Your task to perform on an android device: Look up the best rated pressure washer on Home Depot. Image 0: 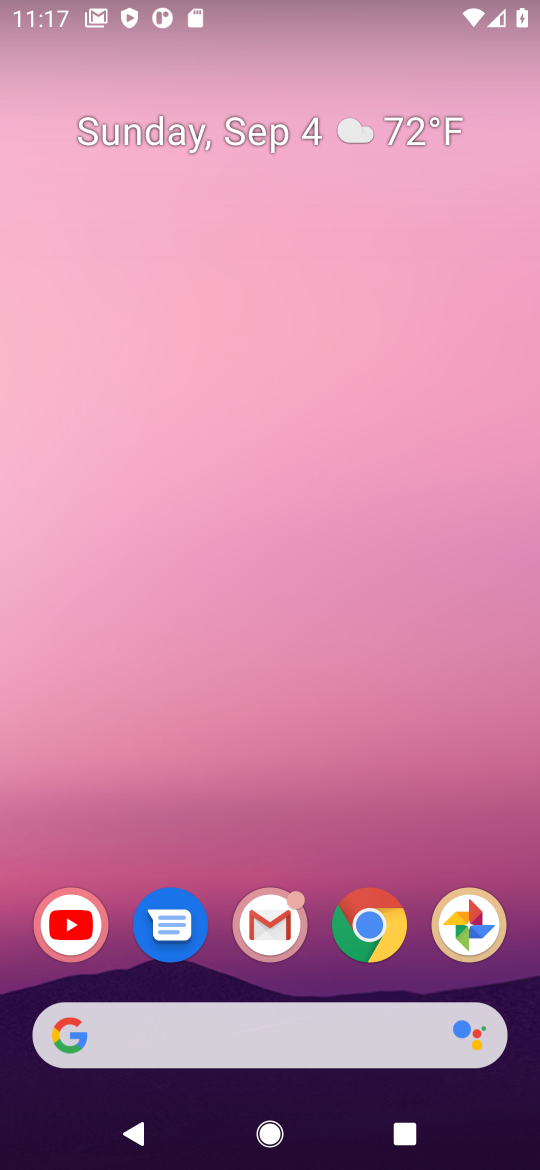
Step 0: press home button
Your task to perform on an android device: Look up the best rated pressure washer on Home Depot. Image 1: 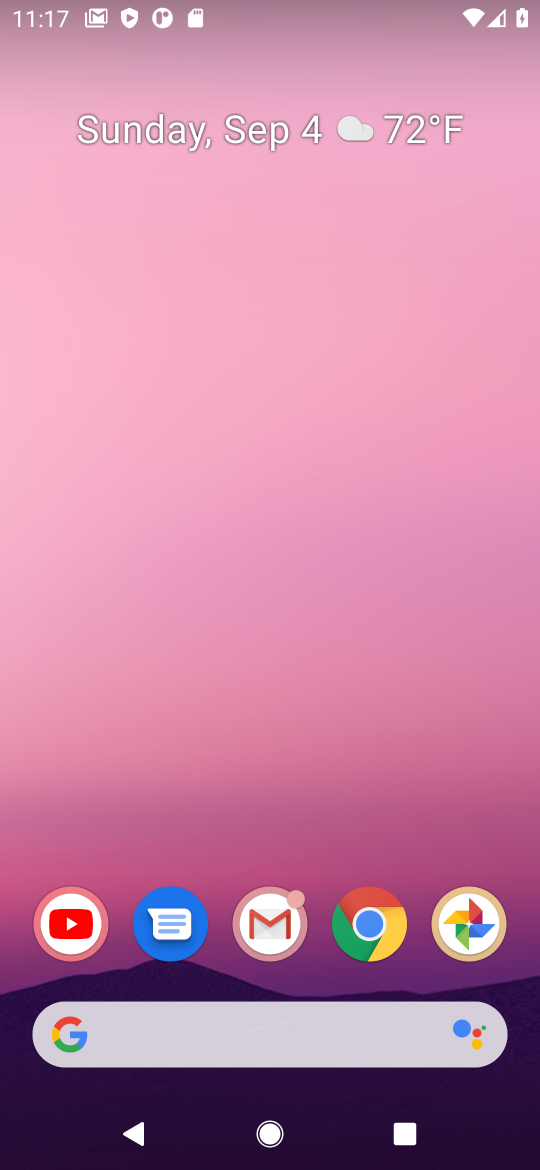
Step 1: drag from (329, 539) to (346, 12)
Your task to perform on an android device: Look up the best rated pressure washer on Home Depot. Image 2: 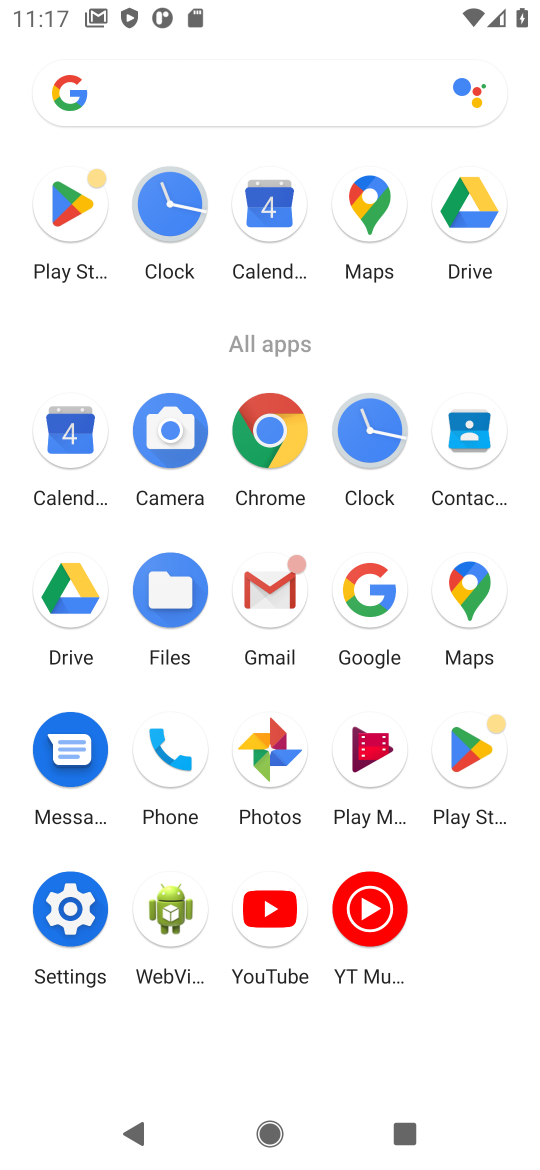
Step 2: click (272, 417)
Your task to perform on an android device: Look up the best rated pressure washer on Home Depot. Image 3: 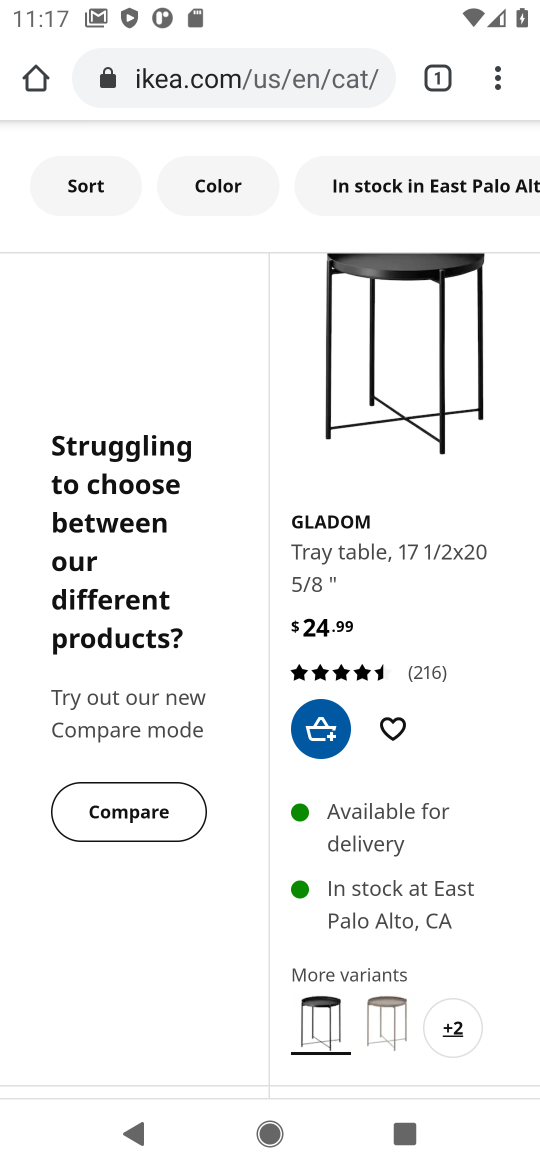
Step 3: click (426, 79)
Your task to perform on an android device: Look up the best rated pressure washer on Home Depot. Image 4: 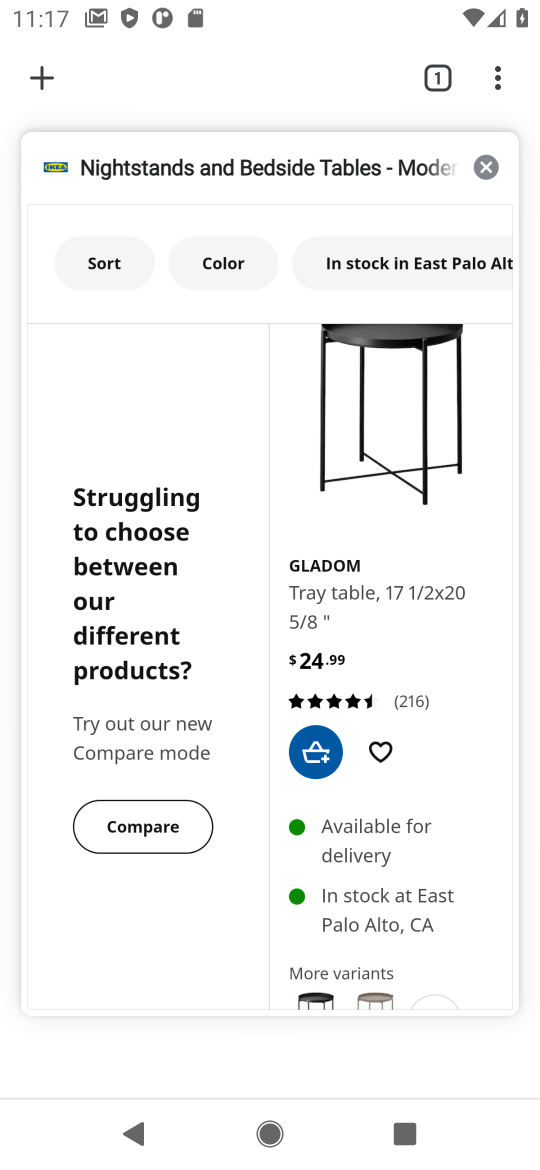
Step 4: click (489, 162)
Your task to perform on an android device: Look up the best rated pressure washer on Home Depot. Image 5: 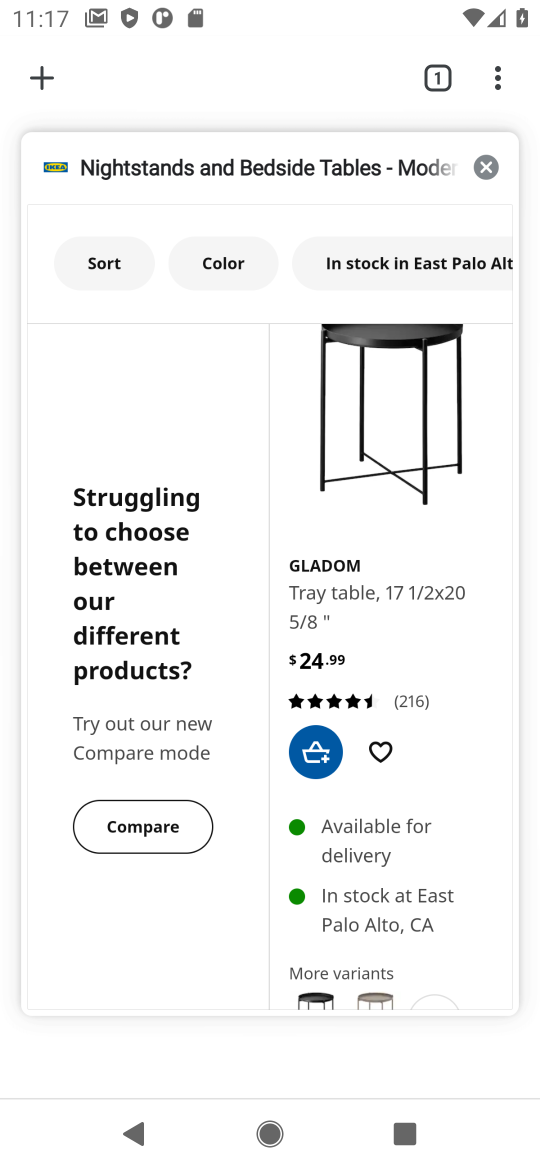
Step 5: click (48, 86)
Your task to perform on an android device: Look up the best rated pressure washer on Home Depot. Image 6: 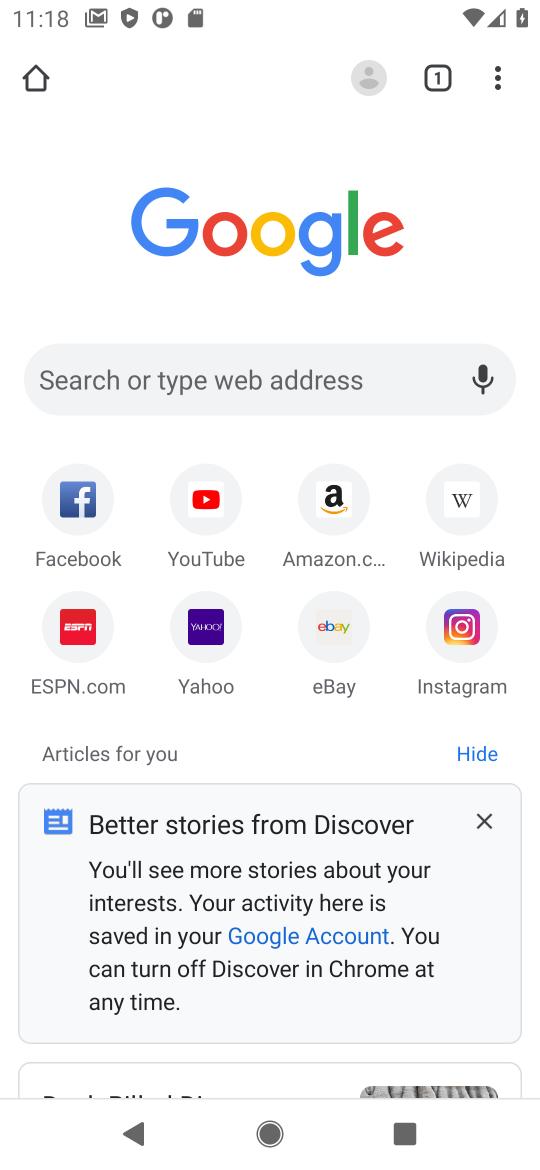
Step 6: click (162, 373)
Your task to perform on an android device: Look up the best rated pressure washer on Home Depot. Image 7: 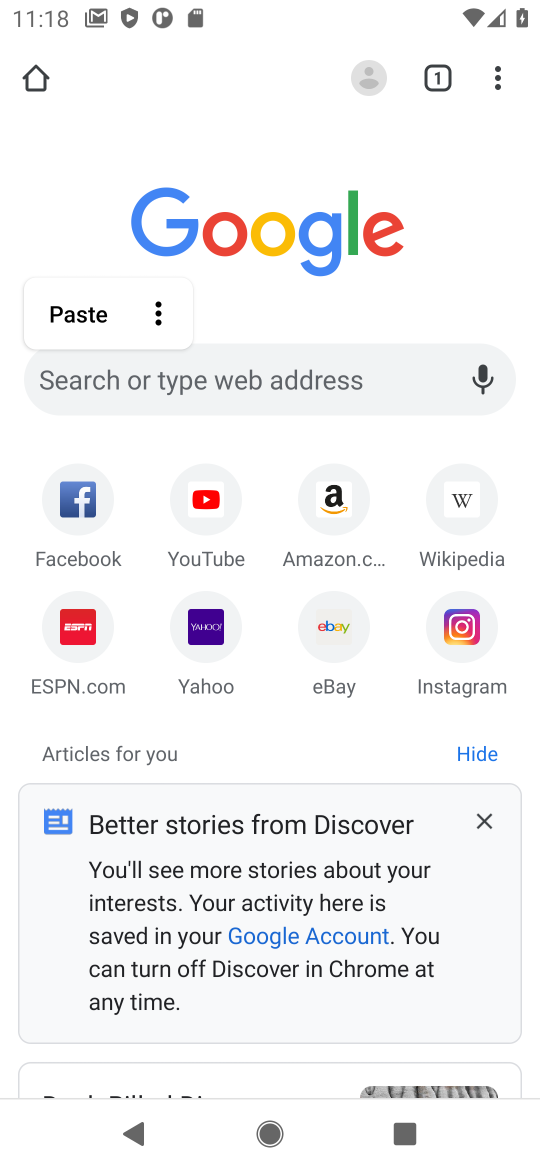
Step 7: click (213, 369)
Your task to perform on an android device: Look up the best rated pressure washer on Home Depot. Image 8: 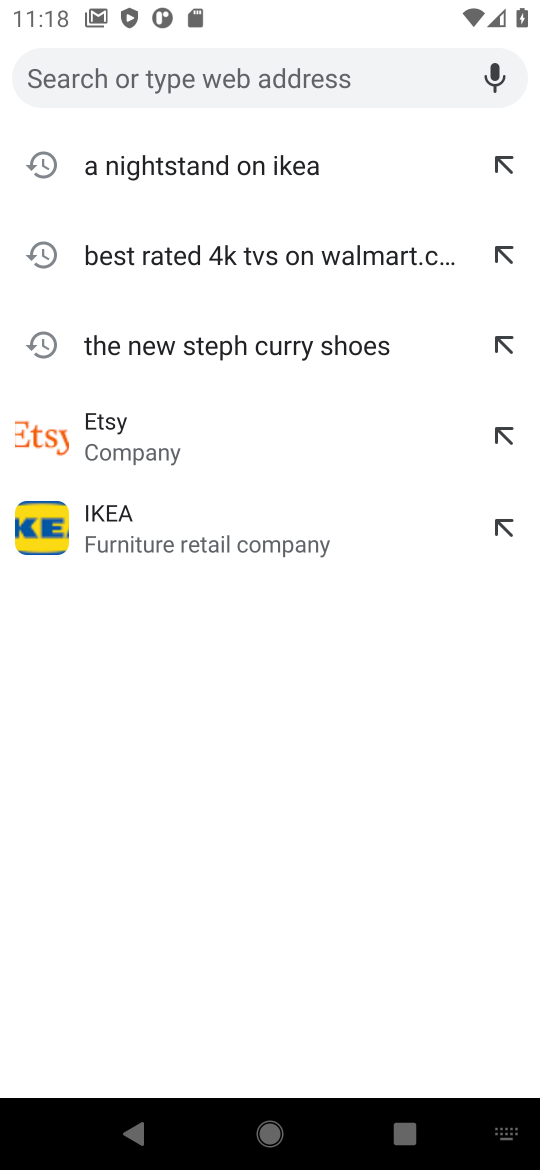
Step 8: type "best rated pressure washer on Home Depot."
Your task to perform on an android device: Look up the best rated pressure washer on Home Depot. Image 9: 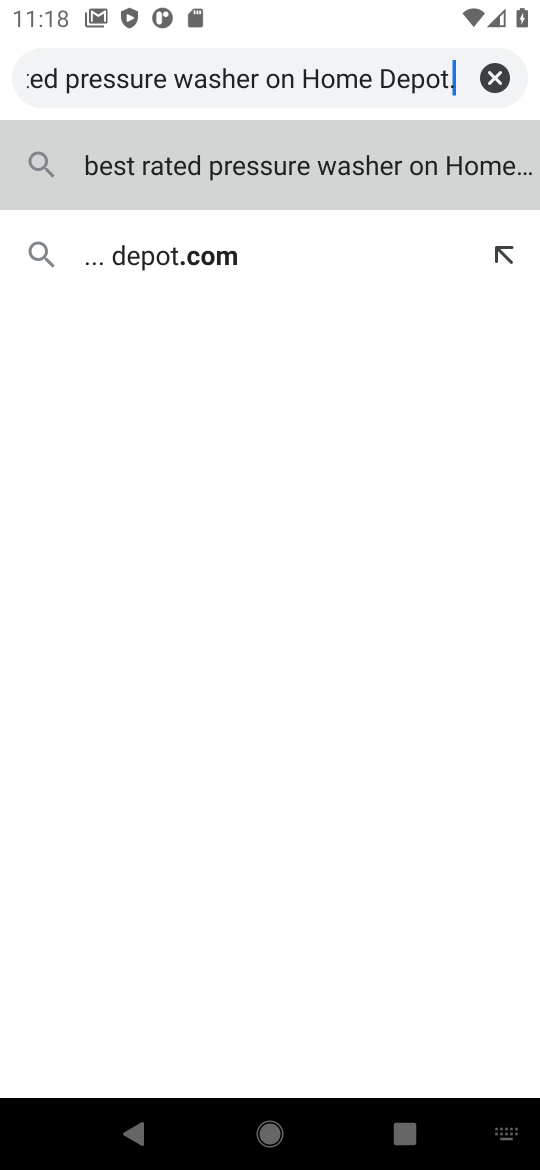
Step 9: click (164, 174)
Your task to perform on an android device: Look up the best rated pressure washer on Home Depot. Image 10: 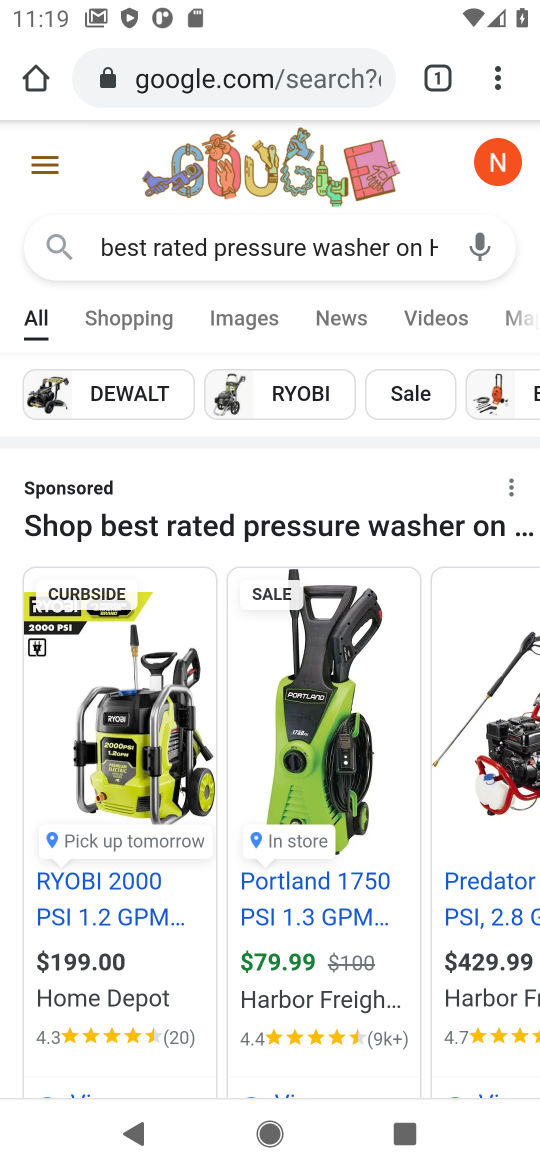
Step 10: drag from (220, 938) to (195, 419)
Your task to perform on an android device: Look up the best rated pressure washer on Home Depot. Image 11: 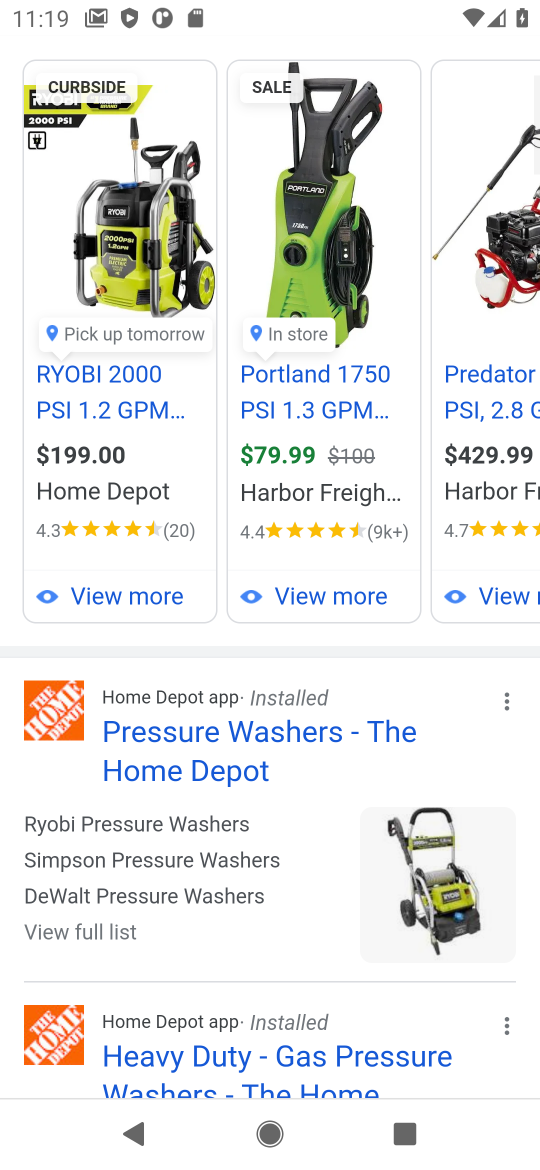
Step 11: click (228, 338)
Your task to perform on an android device: Look up the best rated pressure washer on Home Depot. Image 12: 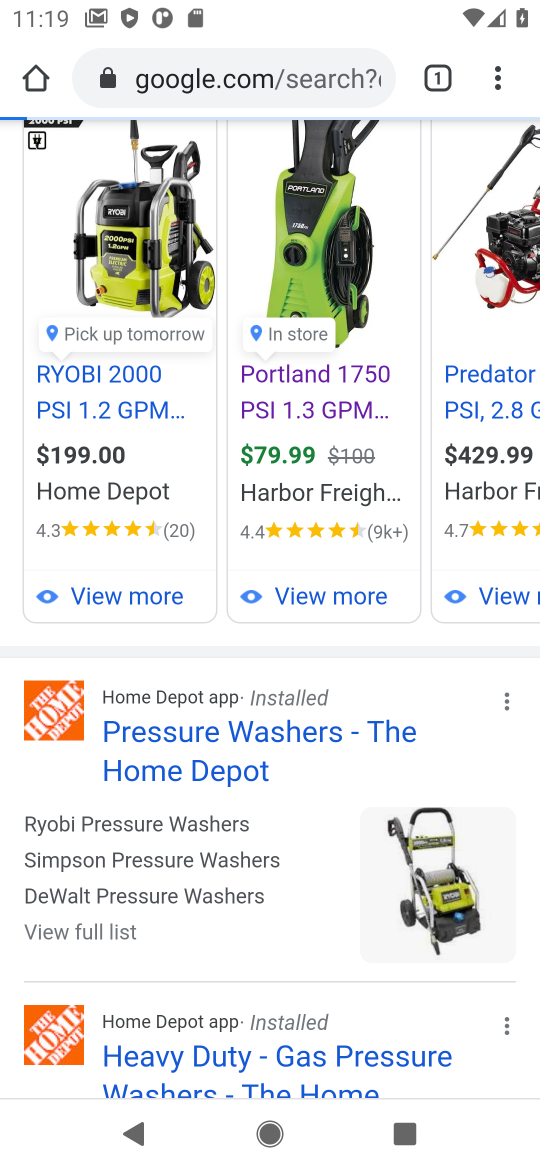
Step 12: drag from (227, 762) to (222, 244)
Your task to perform on an android device: Look up the best rated pressure washer on Home Depot. Image 13: 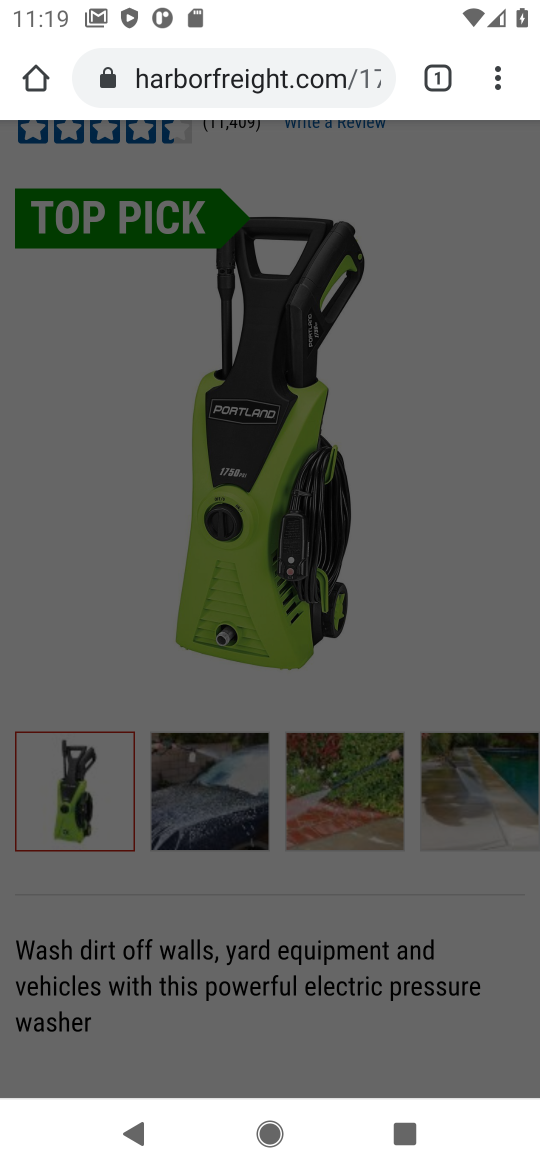
Step 13: drag from (255, 918) to (240, 368)
Your task to perform on an android device: Look up the best rated pressure washer on Home Depot. Image 14: 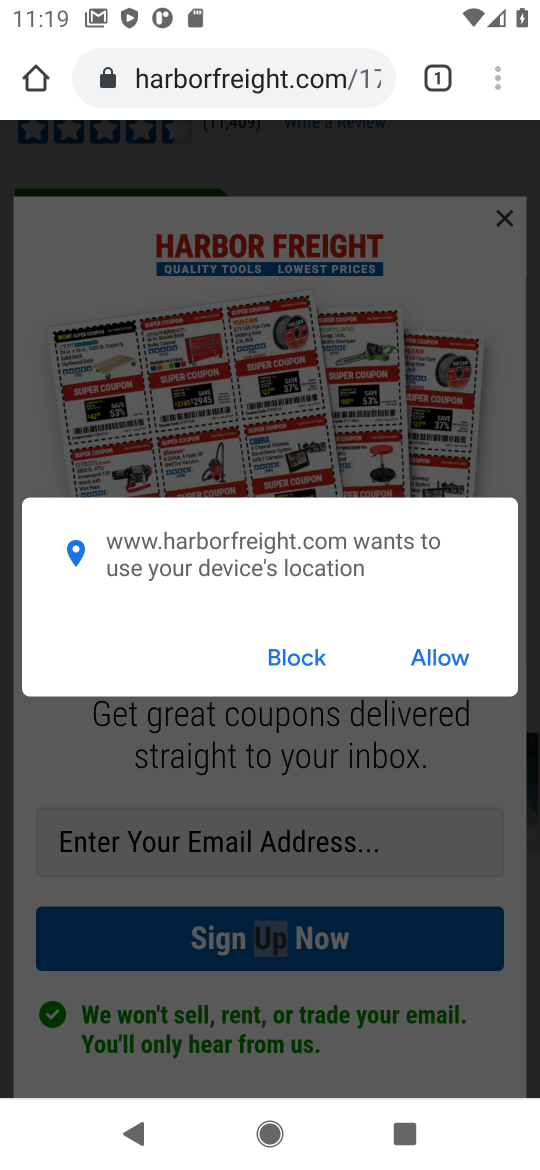
Step 14: click (506, 215)
Your task to perform on an android device: Look up the best rated pressure washer on Home Depot. Image 15: 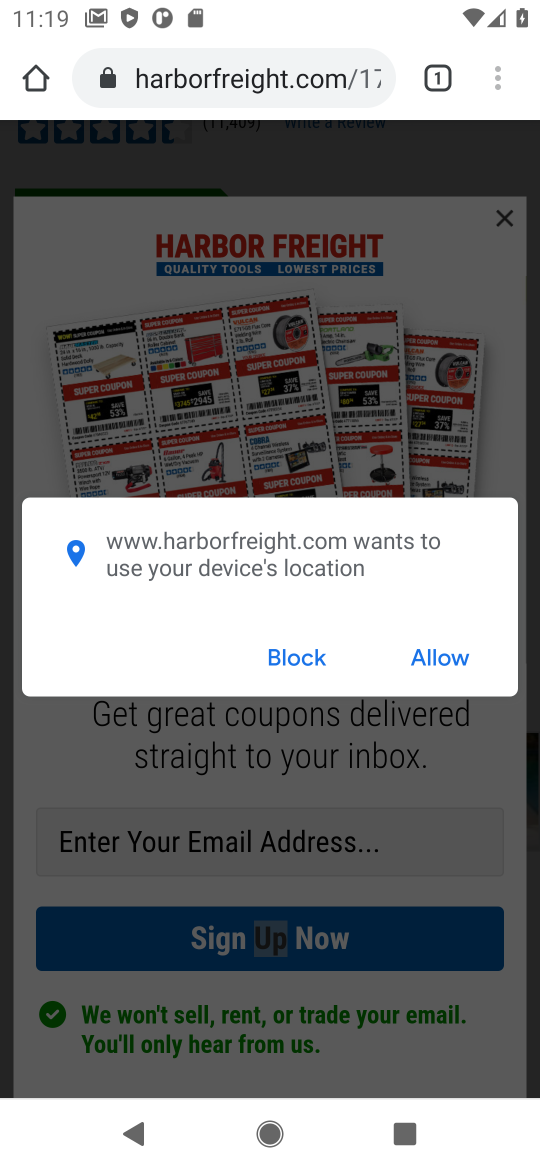
Step 15: click (451, 660)
Your task to perform on an android device: Look up the best rated pressure washer on Home Depot. Image 16: 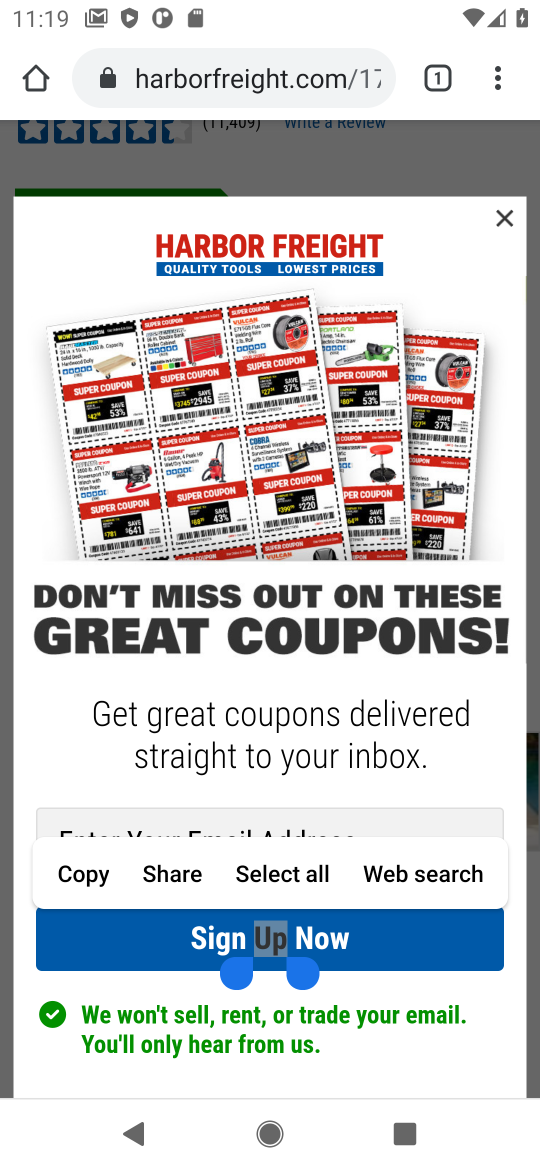
Step 16: click (507, 216)
Your task to perform on an android device: Look up the best rated pressure washer on Home Depot. Image 17: 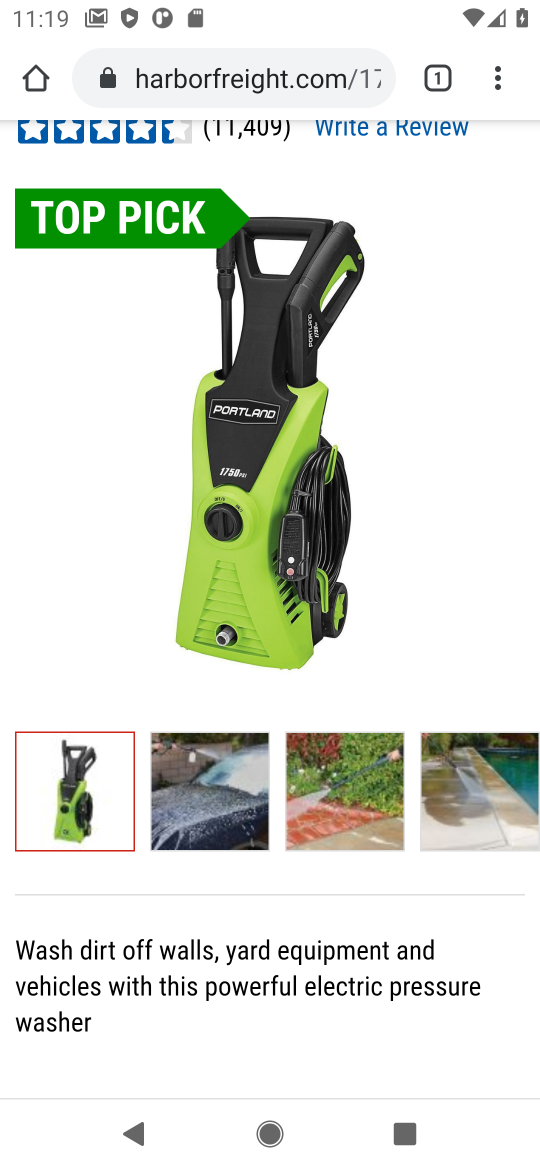
Step 17: drag from (274, 691) to (275, 133)
Your task to perform on an android device: Look up the best rated pressure washer on Home Depot. Image 18: 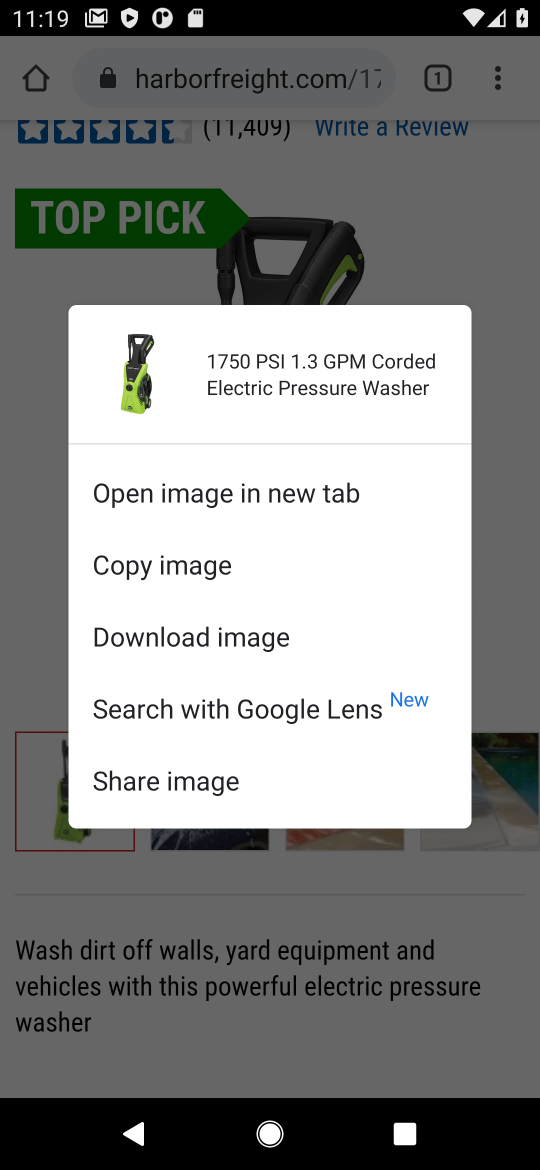
Step 18: click (323, 953)
Your task to perform on an android device: Look up the best rated pressure washer on Home Depot. Image 19: 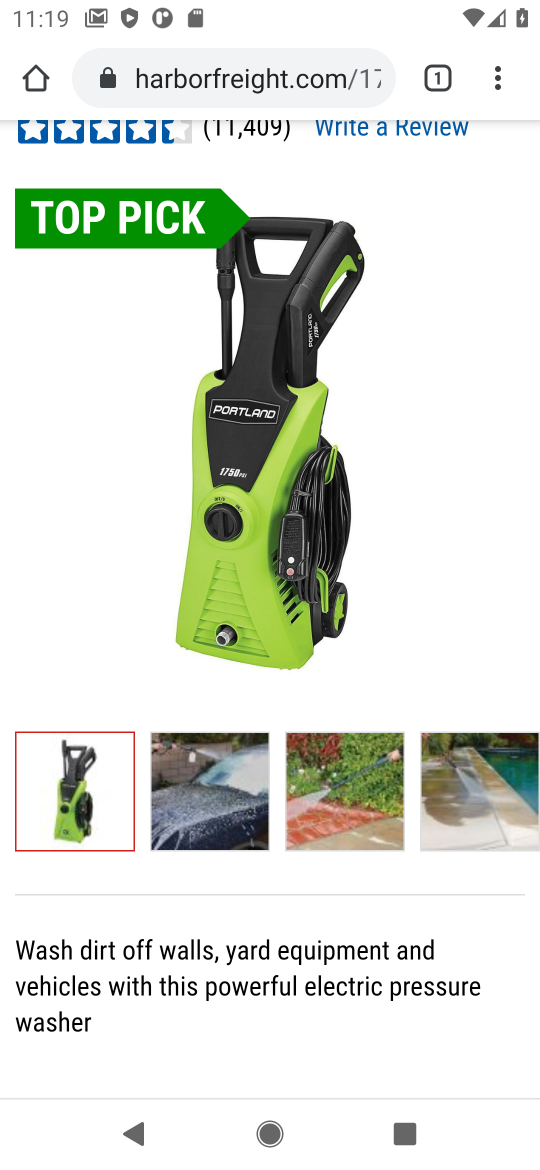
Step 19: click (273, 125)
Your task to perform on an android device: Look up the best rated pressure washer on Home Depot. Image 20: 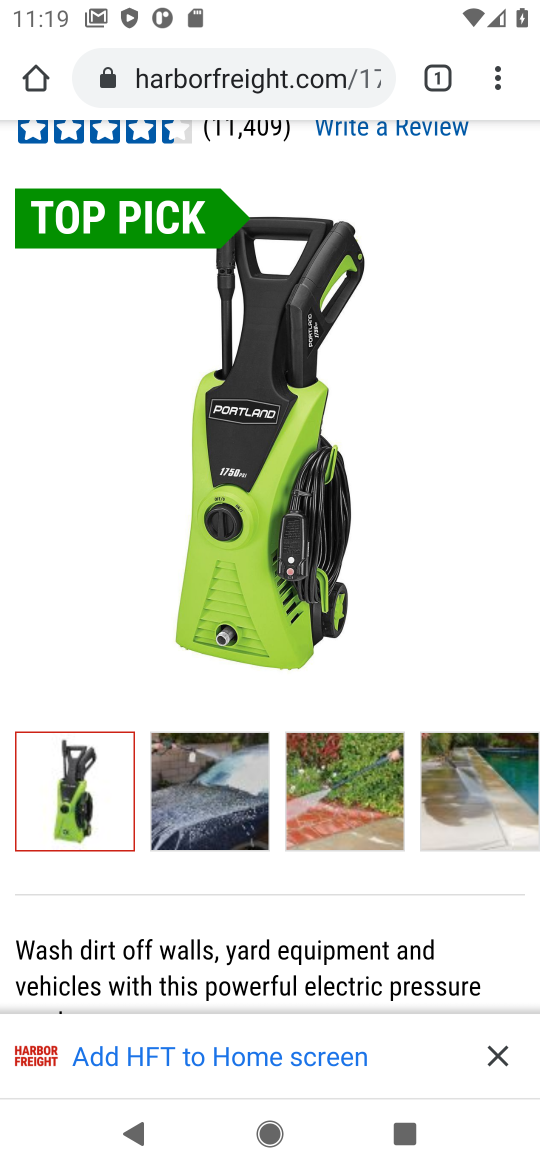
Step 20: drag from (280, 558) to (287, 127)
Your task to perform on an android device: Look up the best rated pressure washer on Home Depot. Image 21: 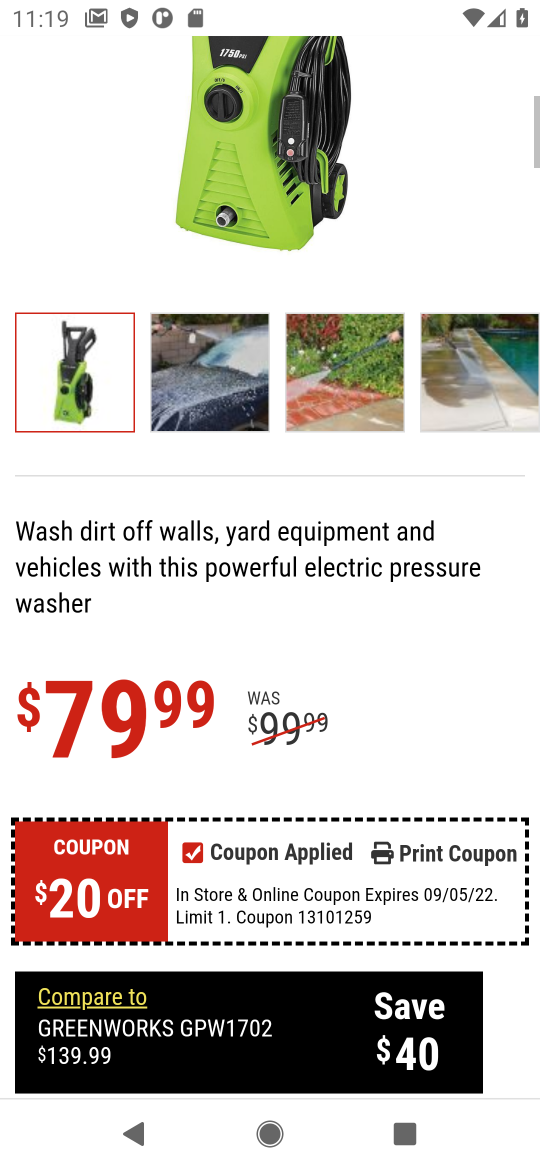
Step 21: click (212, 282)
Your task to perform on an android device: Look up the best rated pressure washer on Home Depot. Image 22: 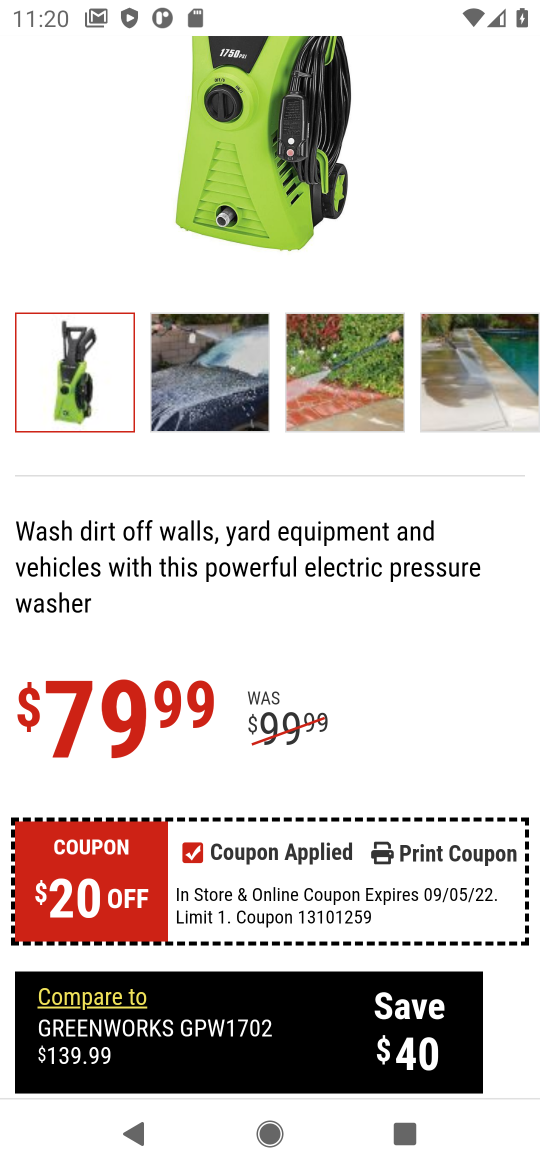
Step 22: drag from (274, 941) to (241, 307)
Your task to perform on an android device: Look up the best rated pressure washer on Home Depot. Image 23: 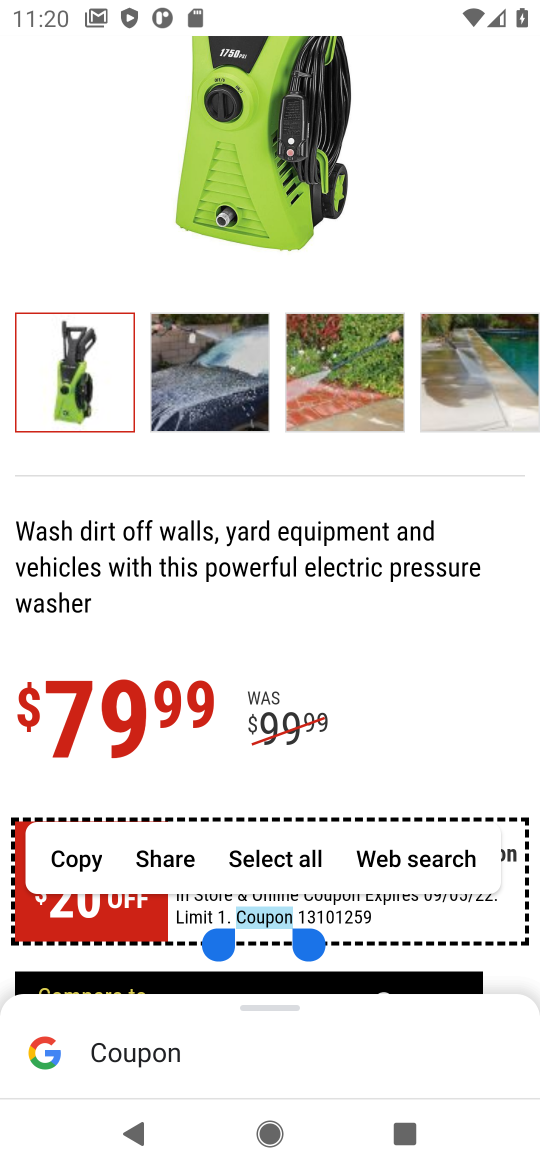
Step 23: click (386, 723)
Your task to perform on an android device: Look up the best rated pressure washer on Home Depot. Image 24: 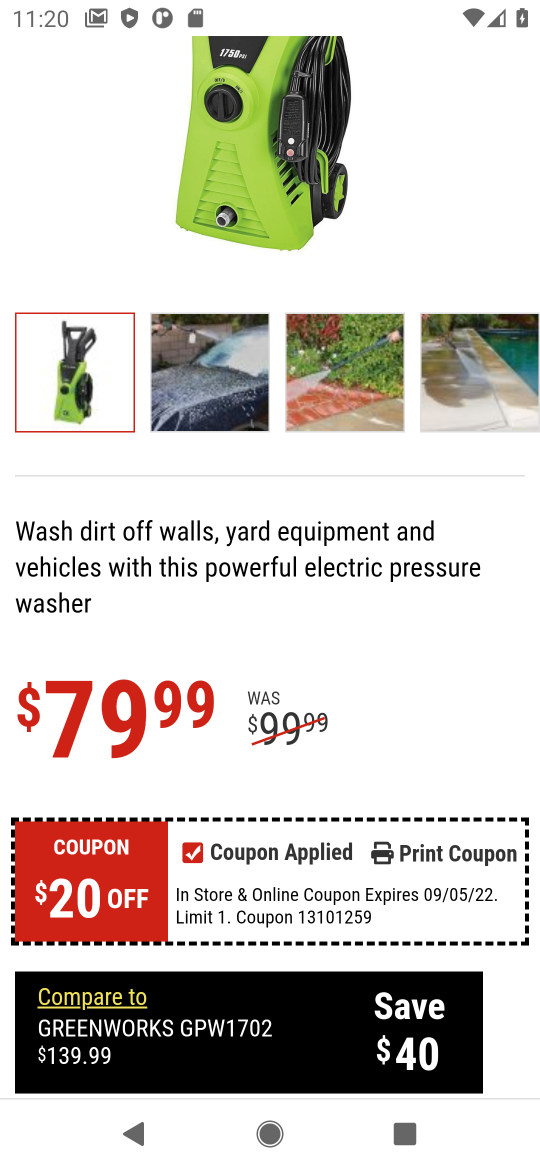
Step 24: task complete